Your task to perform on an android device: turn on notifications settings in the gmail app Image 0: 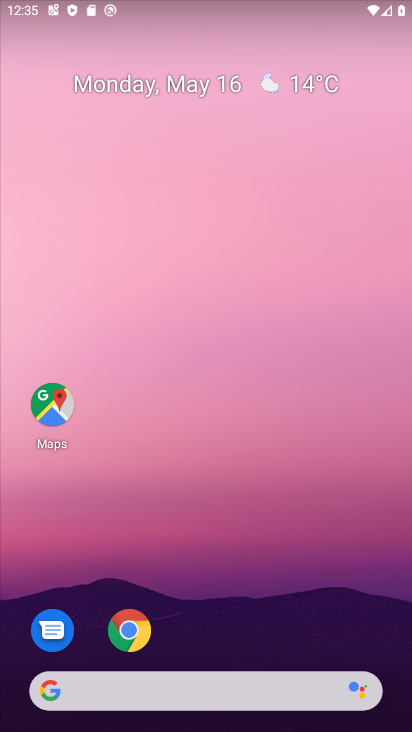
Step 0: drag from (272, 644) to (232, 108)
Your task to perform on an android device: turn on notifications settings in the gmail app Image 1: 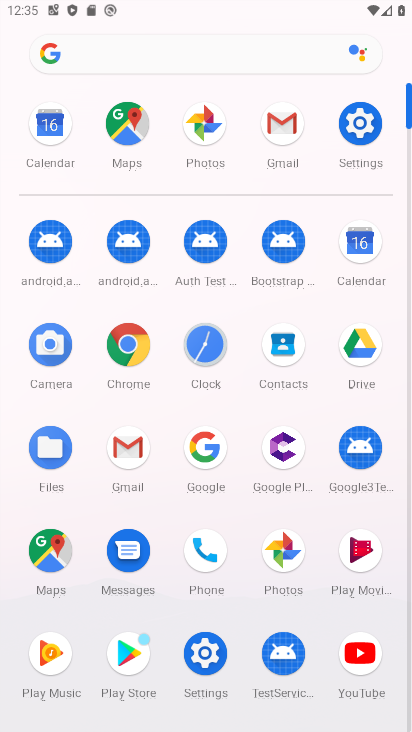
Step 1: click (137, 450)
Your task to perform on an android device: turn on notifications settings in the gmail app Image 2: 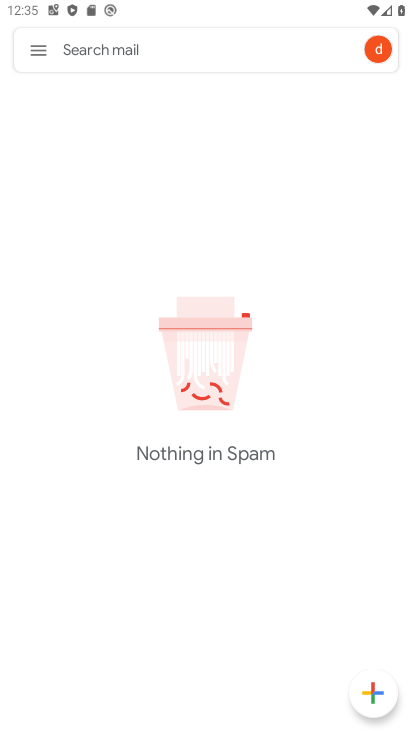
Step 2: click (42, 58)
Your task to perform on an android device: turn on notifications settings in the gmail app Image 3: 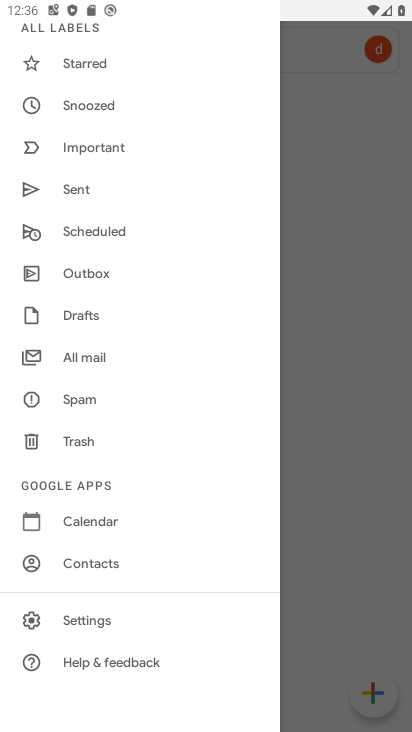
Step 3: click (107, 630)
Your task to perform on an android device: turn on notifications settings in the gmail app Image 4: 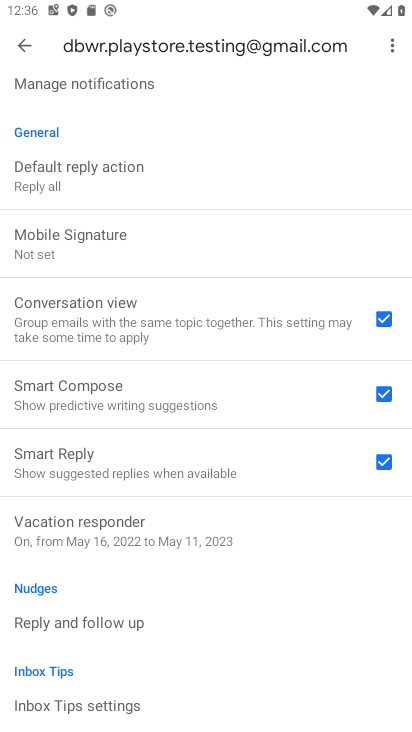
Step 4: drag from (163, 712) to (127, 717)
Your task to perform on an android device: turn on notifications settings in the gmail app Image 5: 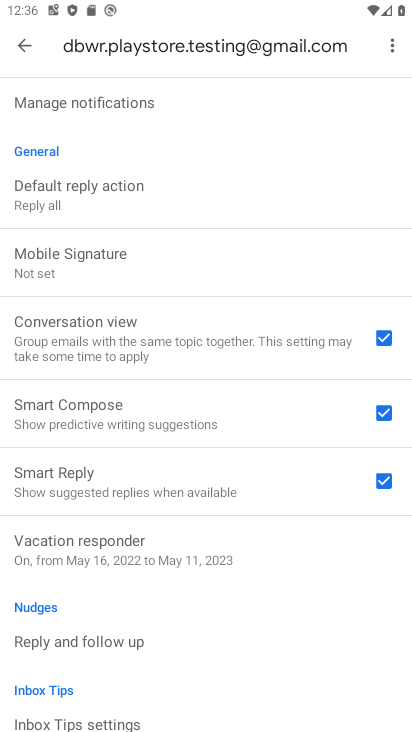
Step 5: drag from (96, 233) to (70, 475)
Your task to perform on an android device: turn on notifications settings in the gmail app Image 6: 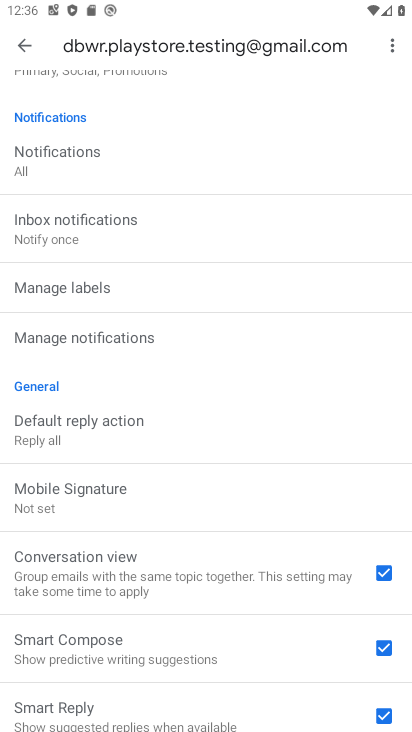
Step 6: click (74, 342)
Your task to perform on an android device: turn on notifications settings in the gmail app Image 7: 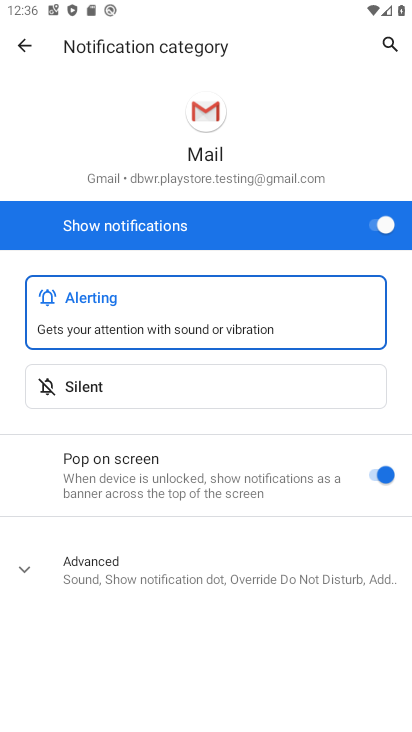
Step 7: task complete